Your task to perform on an android device: open chrome and create a bookmark for the current page Image 0: 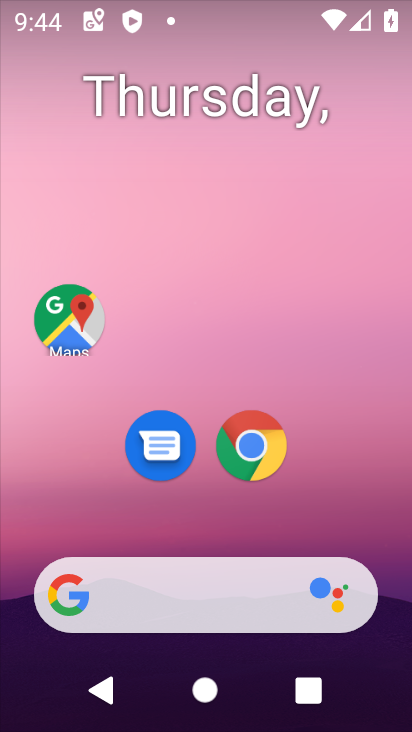
Step 0: click (254, 441)
Your task to perform on an android device: open chrome and create a bookmark for the current page Image 1: 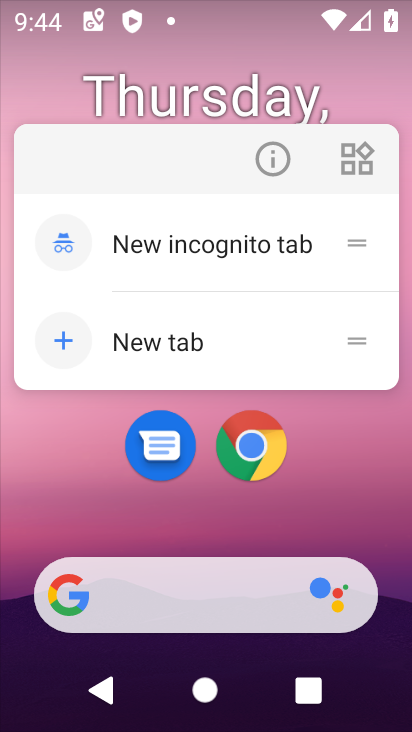
Step 1: click (244, 441)
Your task to perform on an android device: open chrome and create a bookmark for the current page Image 2: 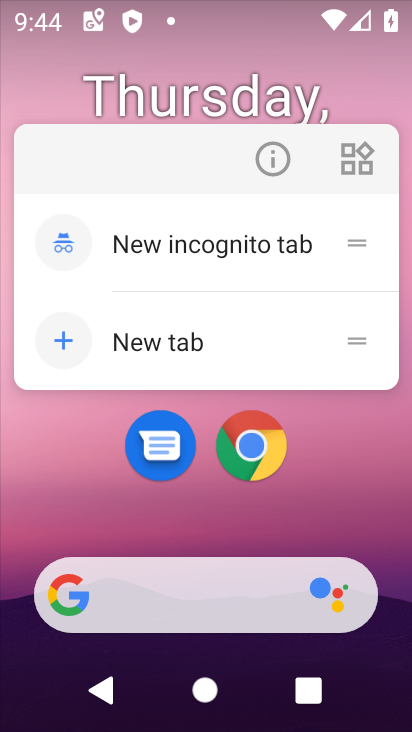
Step 2: click (252, 453)
Your task to perform on an android device: open chrome and create a bookmark for the current page Image 3: 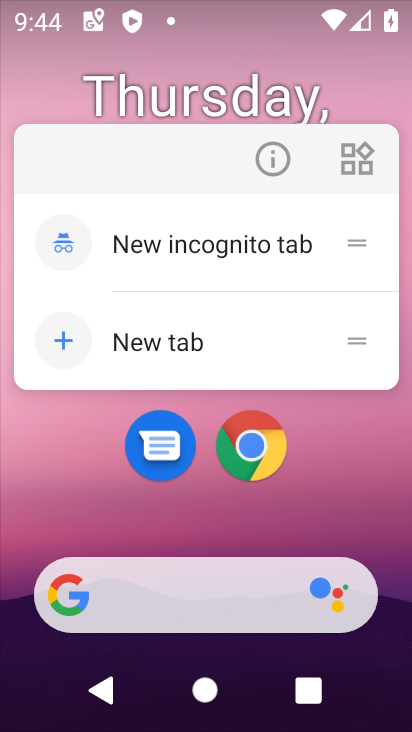
Step 3: click (260, 459)
Your task to perform on an android device: open chrome and create a bookmark for the current page Image 4: 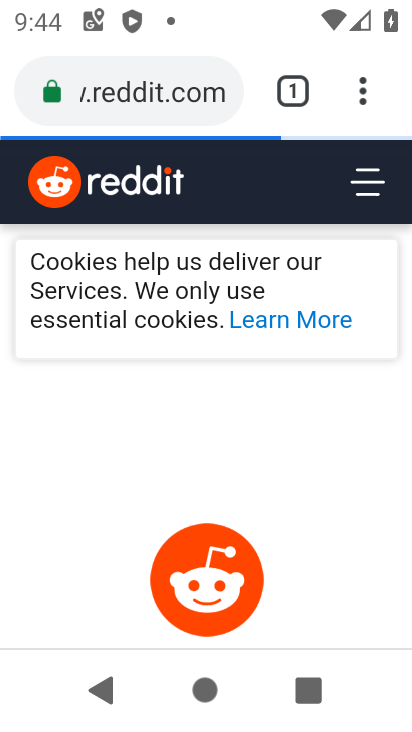
Step 4: click (360, 93)
Your task to perform on an android device: open chrome and create a bookmark for the current page Image 5: 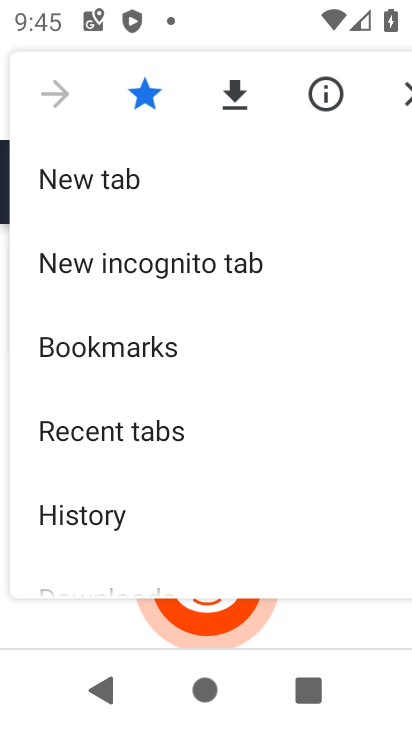
Step 5: click (138, 94)
Your task to perform on an android device: open chrome and create a bookmark for the current page Image 6: 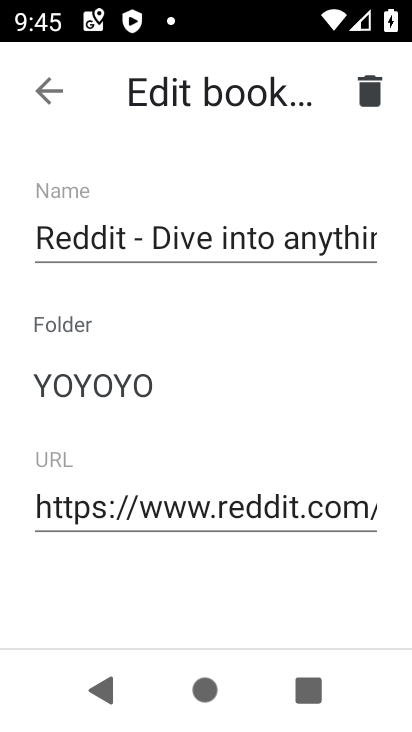
Step 6: task complete